Your task to perform on an android device: delete a single message in the gmail app Image 0: 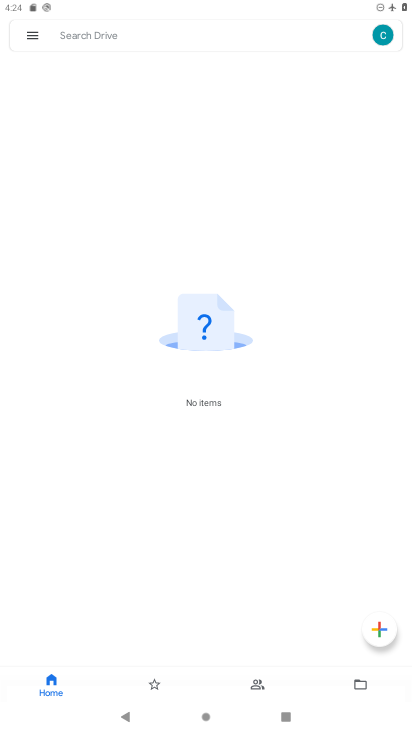
Step 0: press home button
Your task to perform on an android device: delete a single message in the gmail app Image 1: 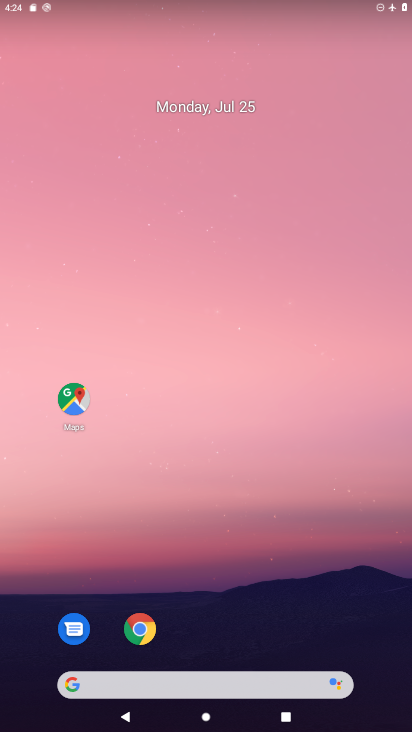
Step 1: click (197, 193)
Your task to perform on an android device: delete a single message in the gmail app Image 2: 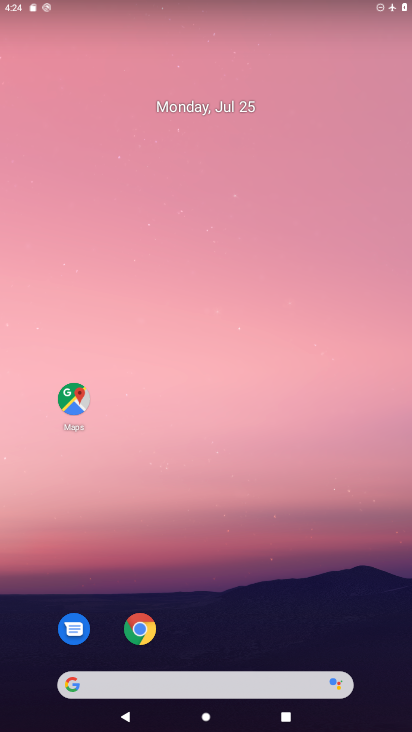
Step 2: drag from (208, 623) to (206, 71)
Your task to perform on an android device: delete a single message in the gmail app Image 3: 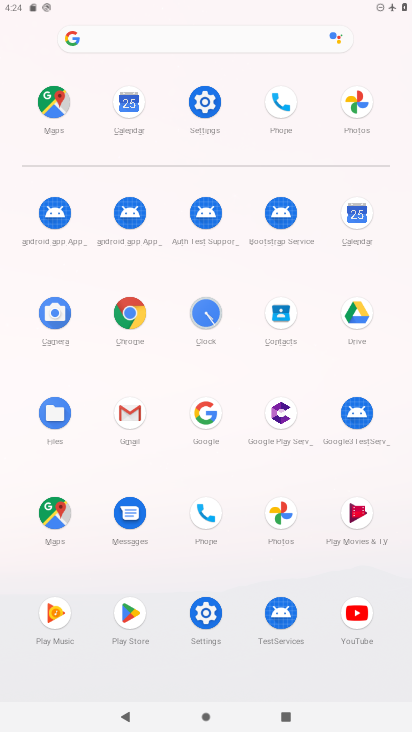
Step 3: click (123, 412)
Your task to perform on an android device: delete a single message in the gmail app Image 4: 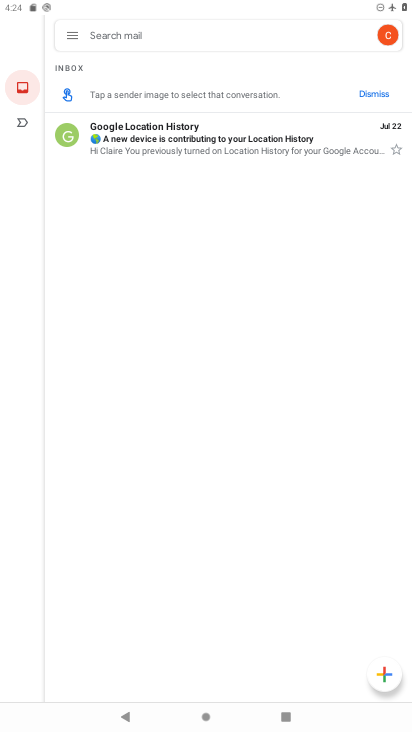
Step 4: click (71, 37)
Your task to perform on an android device: delete a single message in the gmail app Image 5: 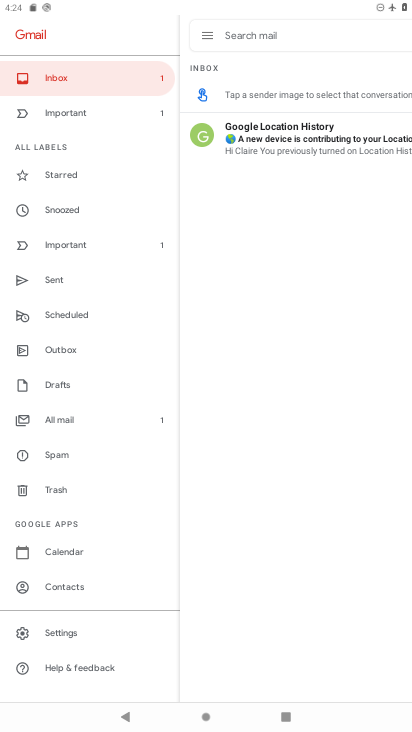
Step 5: click (353, 426)
Your task to perform on an android device: delete a single message in the gmail app Image 6: 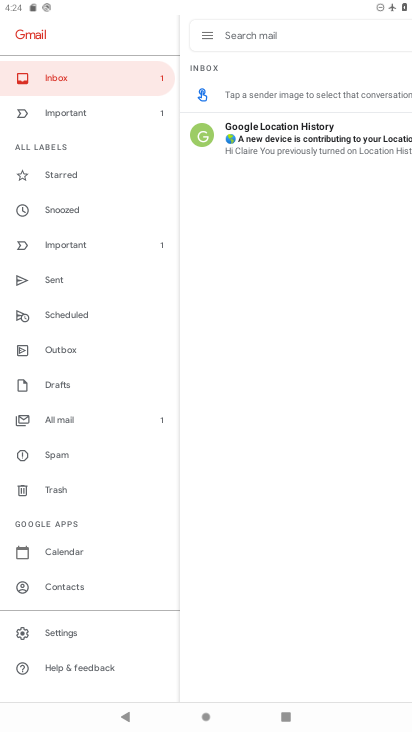
Step 6: drag from (205, 266) to (24, 240)
Your task to perform on an android device: delete a single message in the gmail app Image 7: 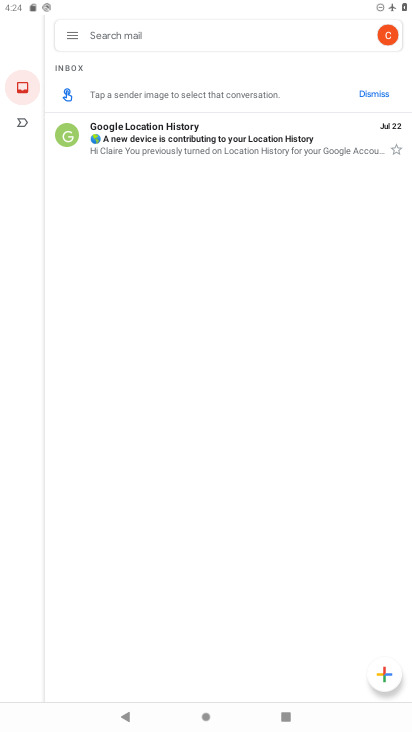
Step 7: click (289, 145)
Your task to perform on an android device: delete a single message in the gmail app Image 8: 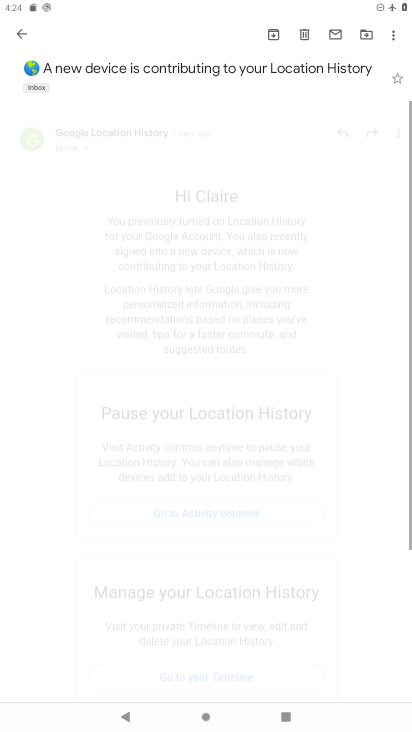
Step 8: click (387, 42)
Your task to perform on an android device: delete a single message in the gmail app Image 9: 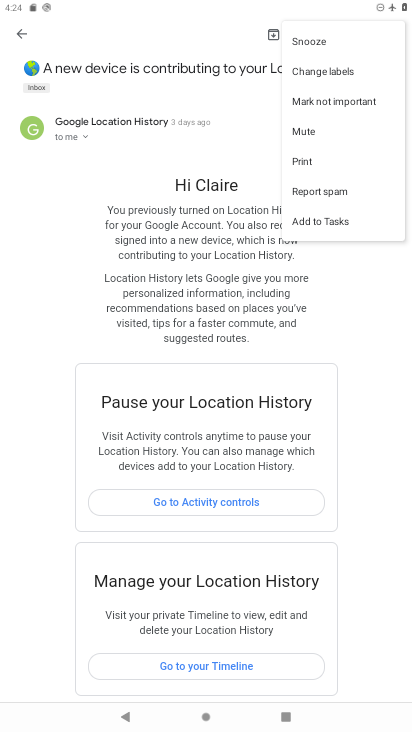
Step 9: click (187, 51)
Your task to perform on an android device: delete a single message in the gmail app Image 10: 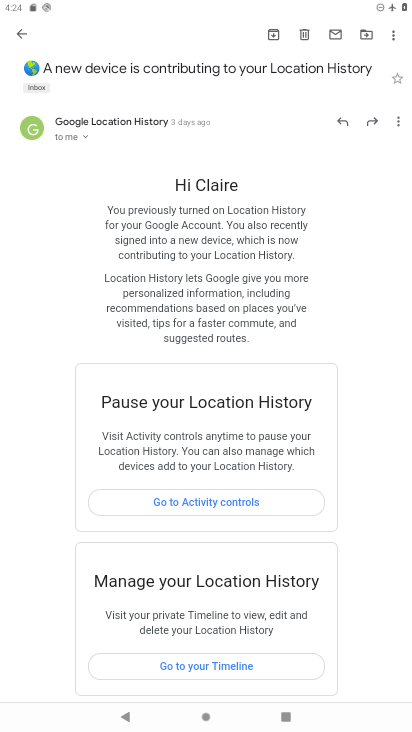
Step 10: click (301, 30)
Your task to perform on an android device: delete a single message in the gmail app Image 11: 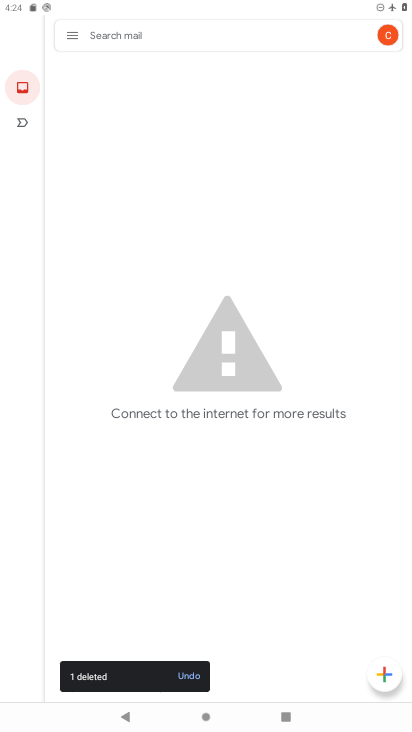
Step 11: task complete